Your task to perform on an android device: search for starred emails in the gmail app Image 0: 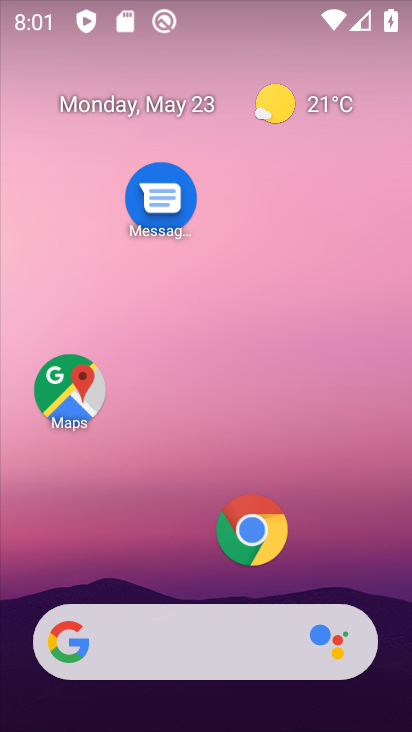
Step 0: drag from (152, 585) to (210, 195)
Your task to perform on an android device: search for starred emails in the gmail app Image 1: 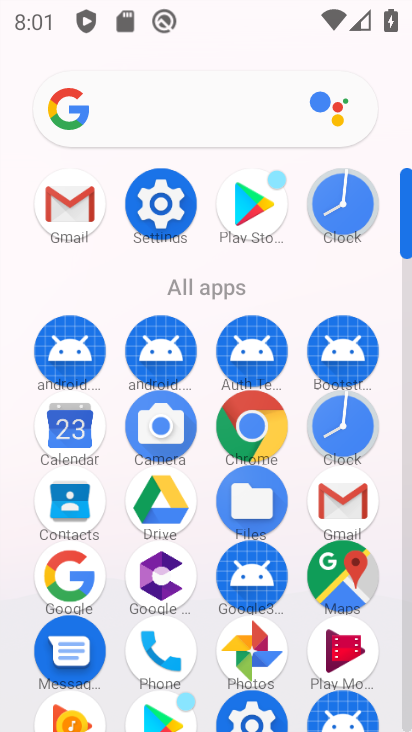
Step 1: click (42, 212)
Your task to perform on an android device: search for starred emails in the gmail app Image 2: 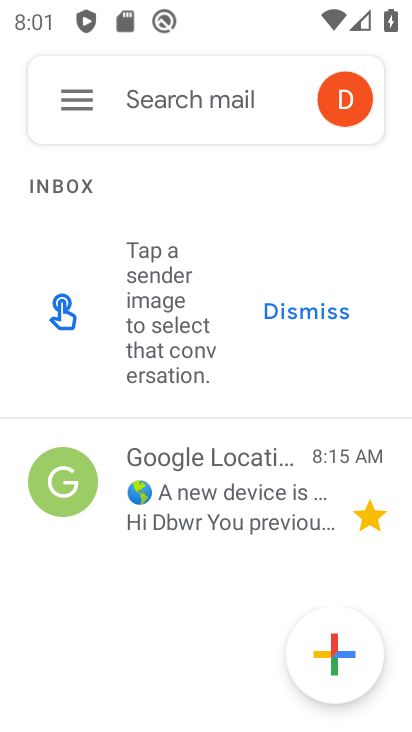
Step 2: click (73, 100)
Your task to perform on an android device: search for starred emails in the gmail app Image 3: 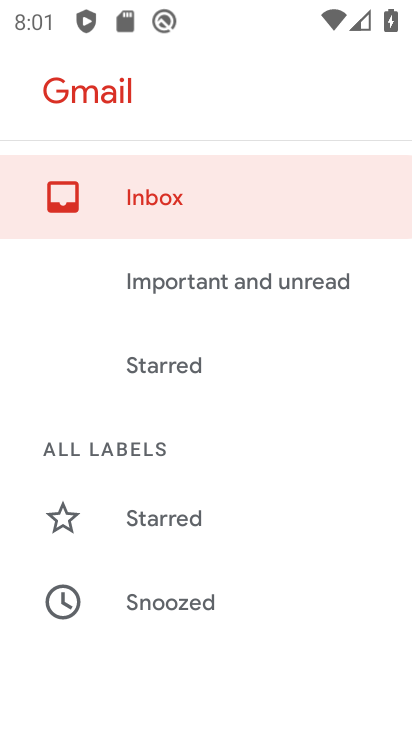
Step 3: click (131, 361)
Your task to perform on an android device: search for starred emails in the gmail app Image 4: 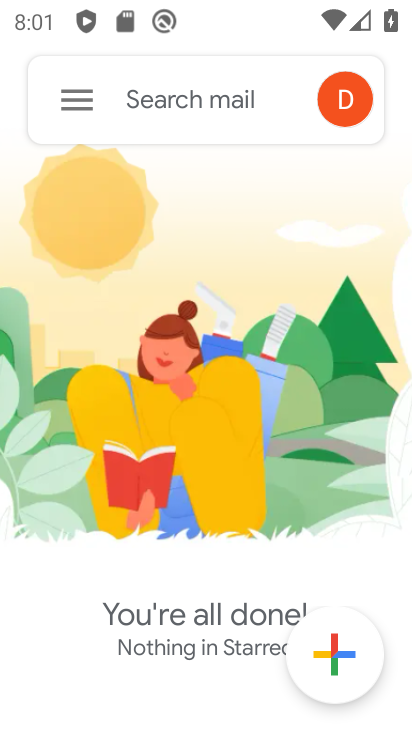
Step 4: task complete